Your task to perform on an android device: Go to Reddit.com Image 0: 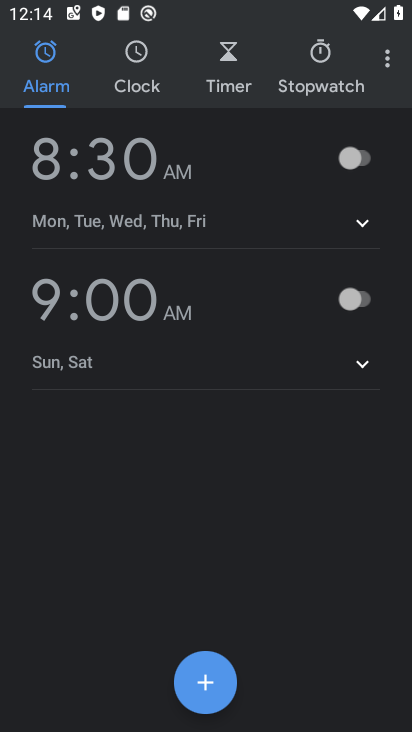
Step 0: press home button
Your task to perform on an android device: Go to Reddit.com Image 1: 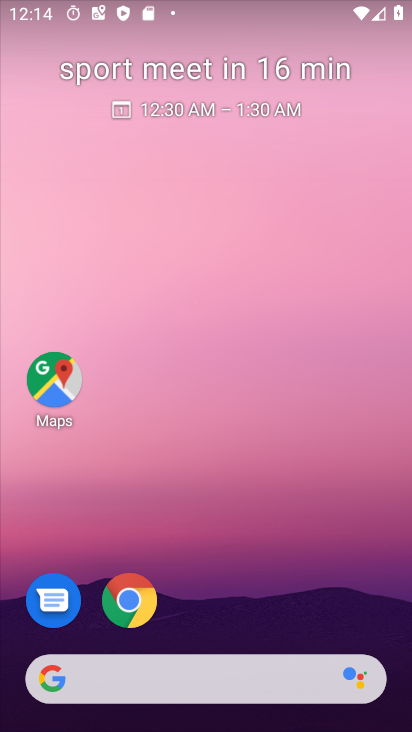
Step 1: click (213, 672)
Your task to perform on an android device: Go to Reddit.com Image 2: 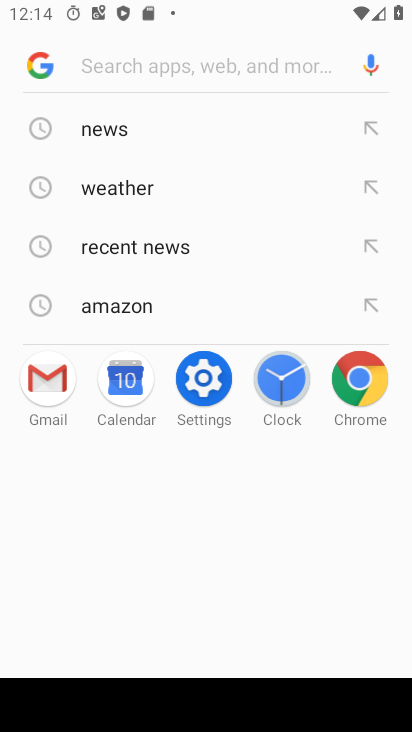
Step 2: type "Reddit.com"
Your task to perform on an android device: Go to Reddit.com Image 3: 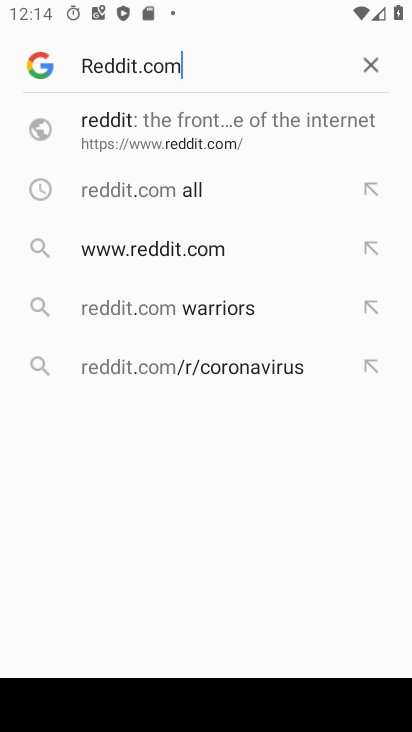
Step 3: click (238, 245)
Your task to perform on an android device: Go to Reddit.com Image 4: 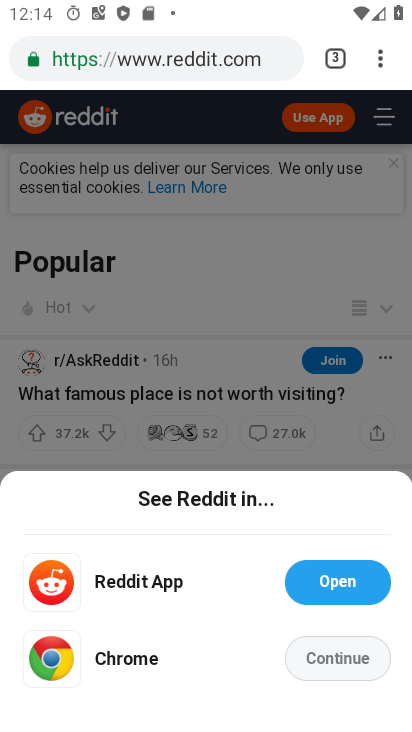
Step 4: click (327, 657)
Your task to perform on an android device: Go to Reddit.com Image 5: 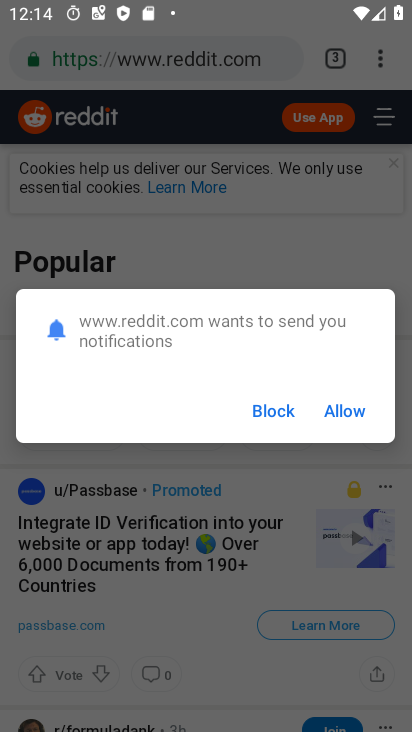
Step 5: click (352, 406)
Your task to perform on an android device: Go to Reddit.com Image 6: 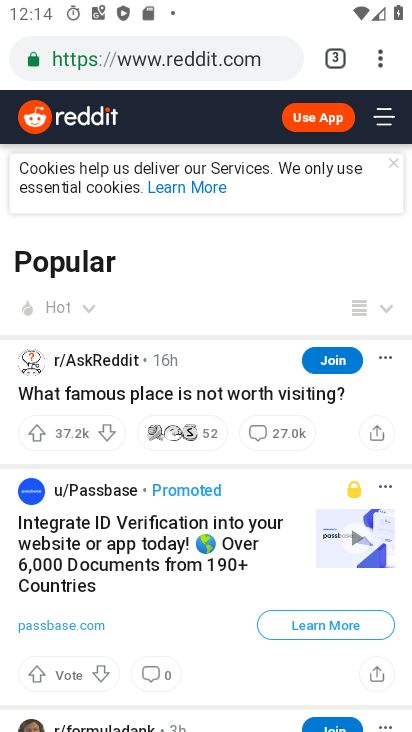
Step 6: task complete